Your task to perform on an android device: turn off airplane mode Image 0: 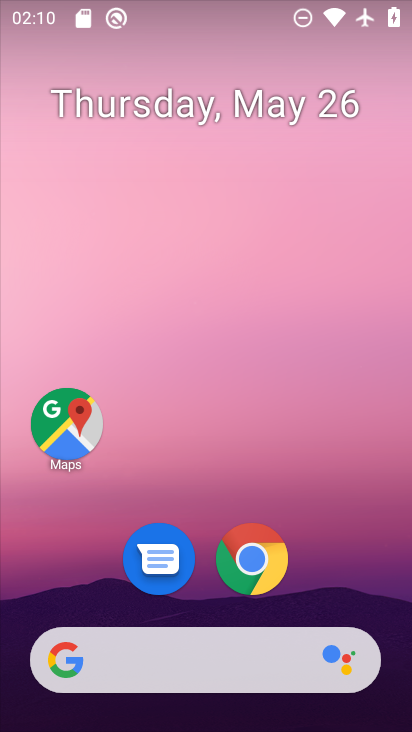
Step 0: drag from (234, 516) to (290, 174)
Your task to perform on an android device: turn off airplane mode Image 1: 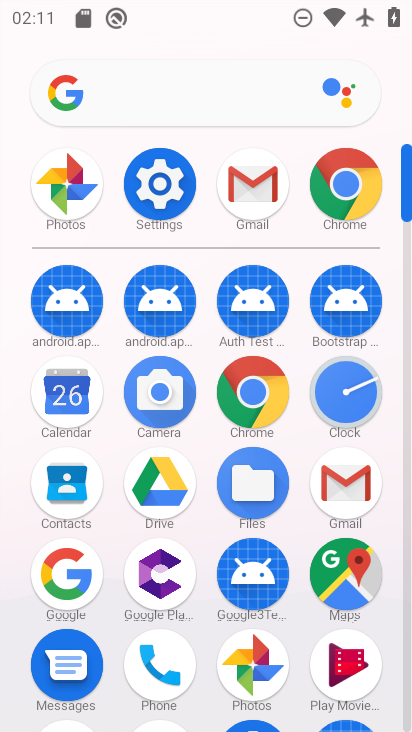
Step 1: click (168, 197)
Your task to perform on an android device: turn off airplane mode Image 2: 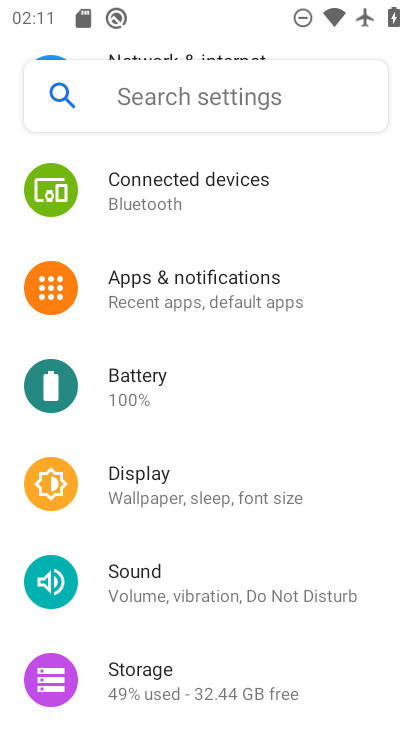
Step 2: drag from (306, 160) to (297, 607)
Your task to perform on an android device: turn off airplane mode Image 3: 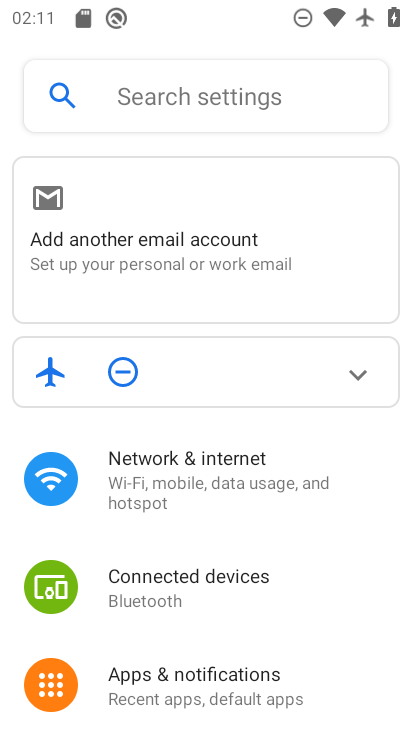
Step 3: click (176, 462)
Your task to perform on an android device: turn off airplane mode Image 4: 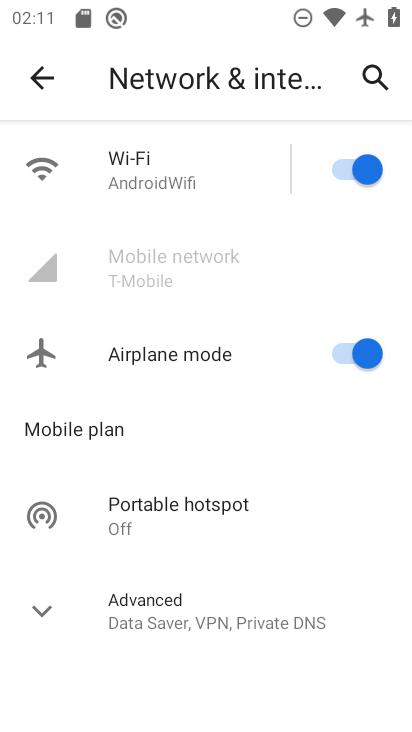
Step 4: click (344, 349)
Your task to perform on an android device: turn off airplane mode Image 5: 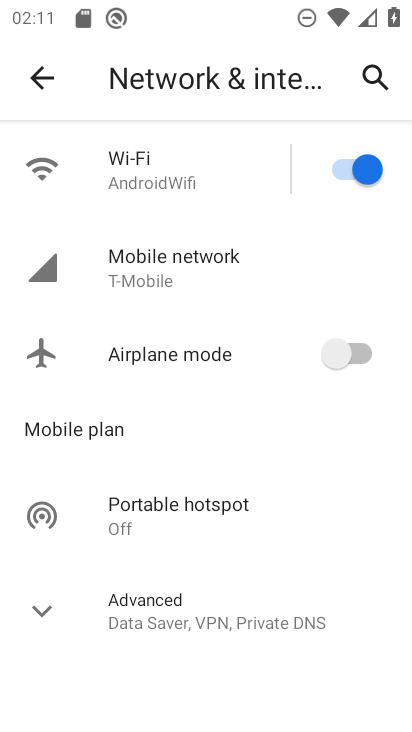
Step 5: task complete